Your task to perform on an android device: Open internet settings Image 0: 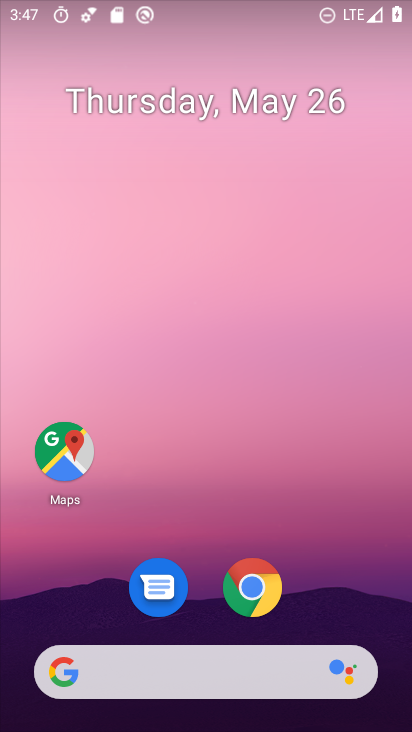
Step 0: drag from (324, 512) to (312, 177)
Your task to perform on an android device: Open internet settings Image 1: 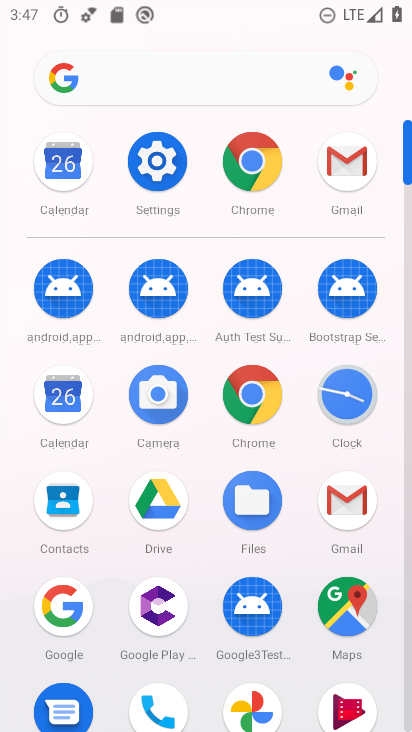
Step 1: click (164, 162)
Your task to perform on an android device: Open internet settings Image 2: 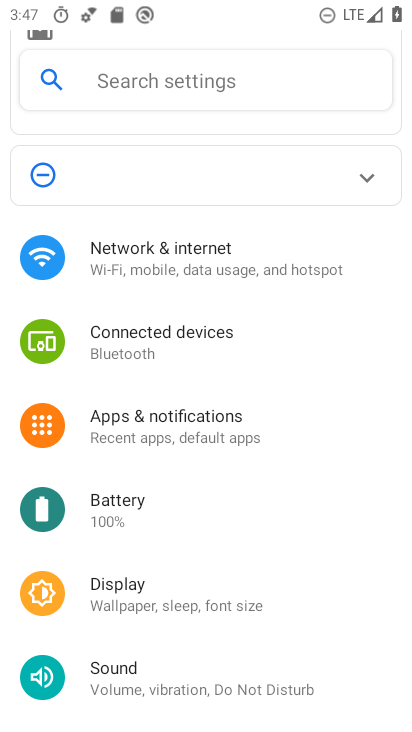
Step 2: click (145, 250)
Your task to perform on an android device: Open internet settings Image 3: 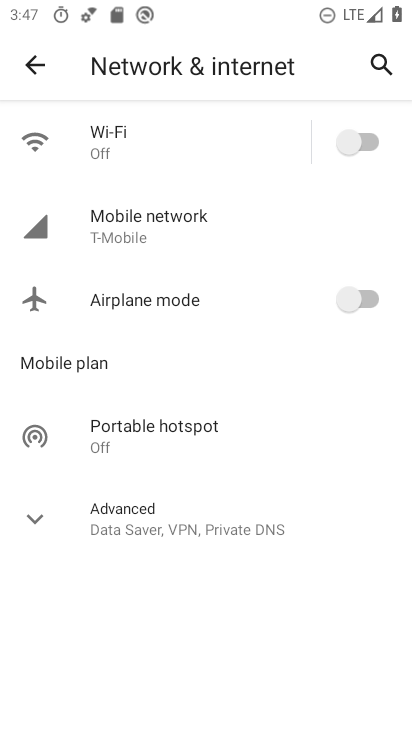
Step 3: click (173, 505)
Your task to perform on an android device: Open internet settings Image 4: 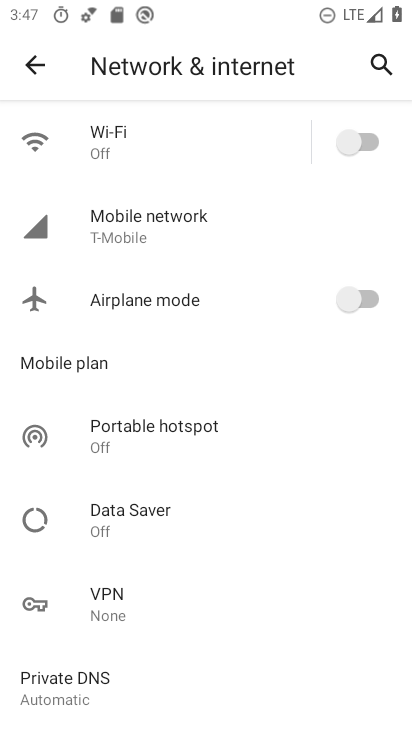
Step 4: task complete